Your task to perform on an android device: Open Amazon Image 0: 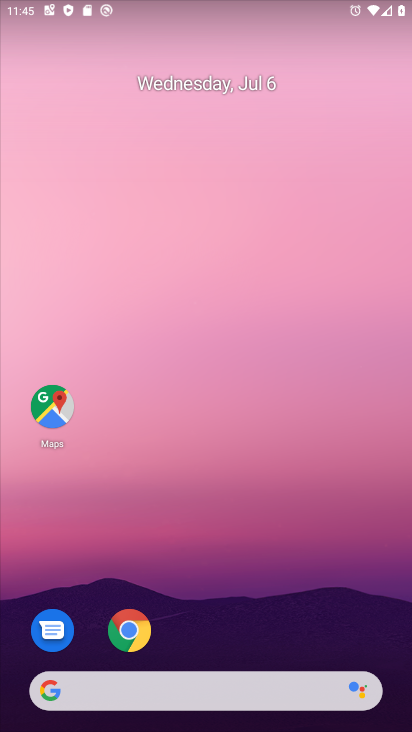
Step 0: click (120, 635)
Your task to perform on an android device: Open Amazon Image 1: 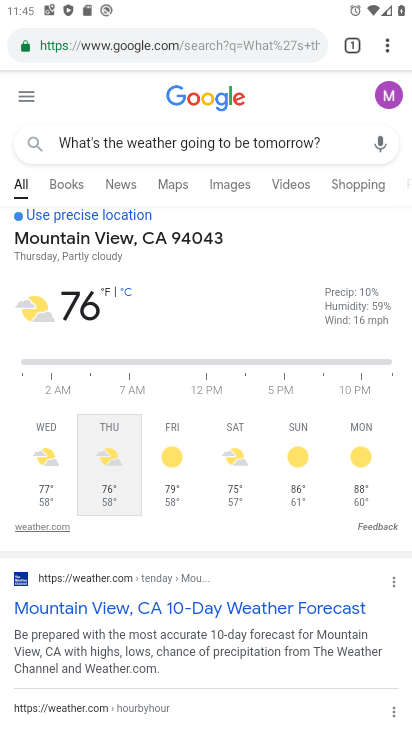
Step 1: click (355, 44)
Your task to perform on an android device: Open Amazon Image 2: 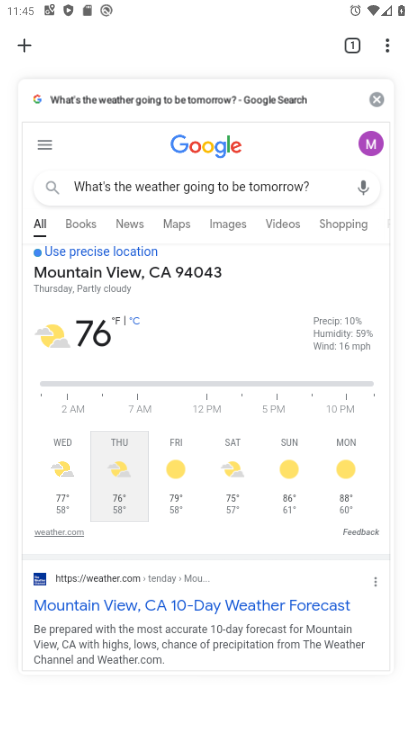
Step 2: click (24, 49)
Your task to perform on an android device: Open Amazon Image 3: 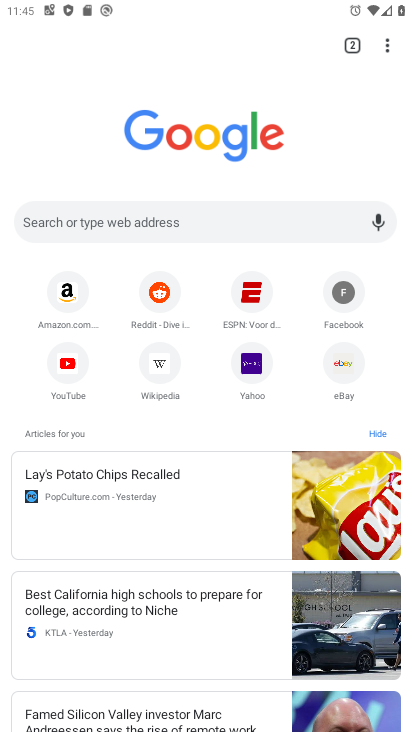
Step 3: click (76, 305)
Your task to perform on an android device: Open Amazon Image 4: 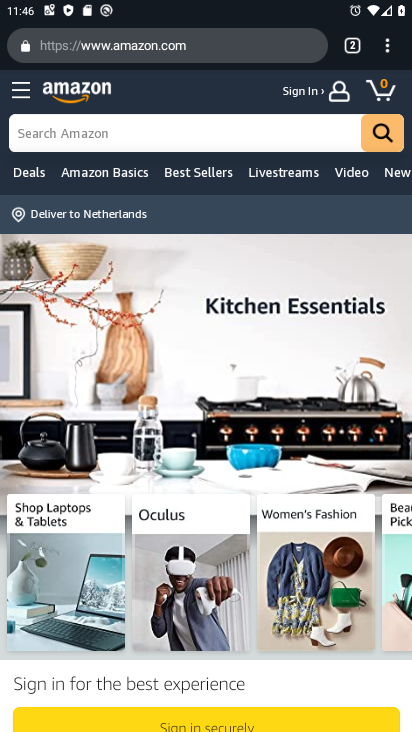
Step 4: task complete